Your task to perform on an android device: open chrome privacy settings Image 0: 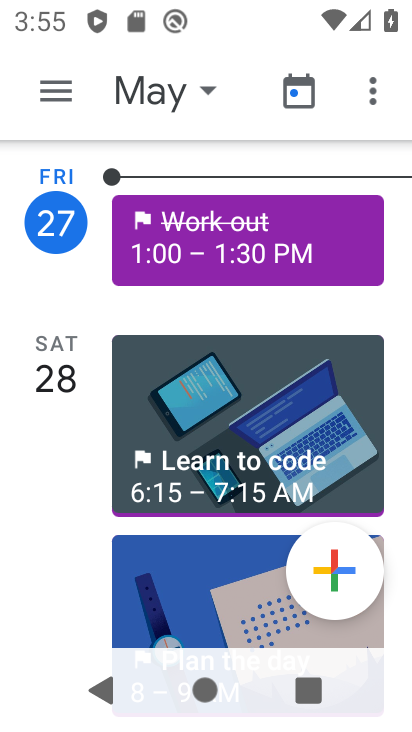
Step 0: press back button
Your task to perform on an android device: open chrome privacy settings Image 1: 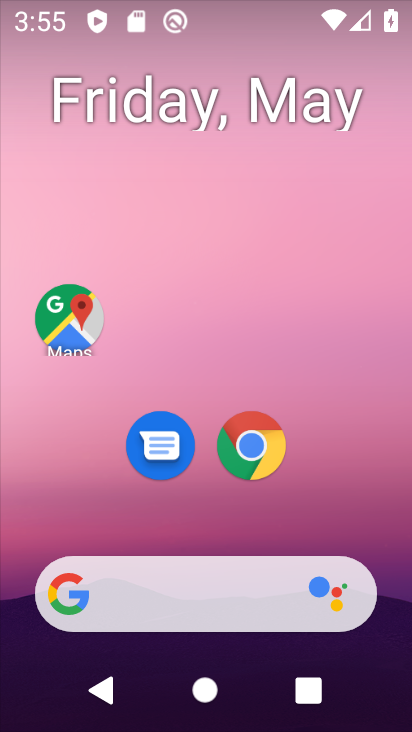
Step 1: click (254, 442)
Your task to perform on an android device: open chrome privacy settings Image 2: 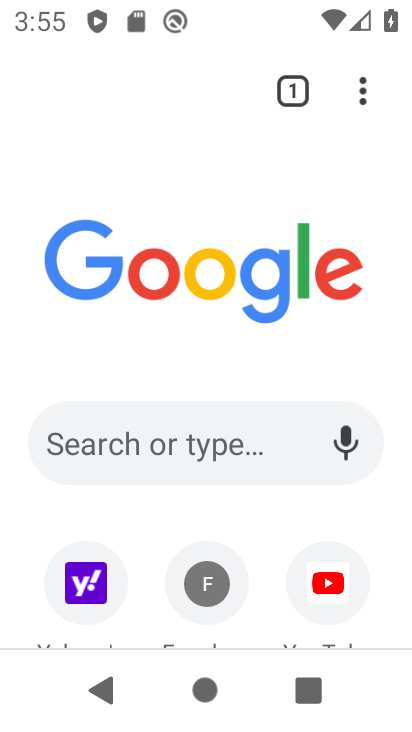
Step 2: drag from (357, 81) to (118, 475)
Your task to perform on an android device: open chrome privacy settings Image 3: 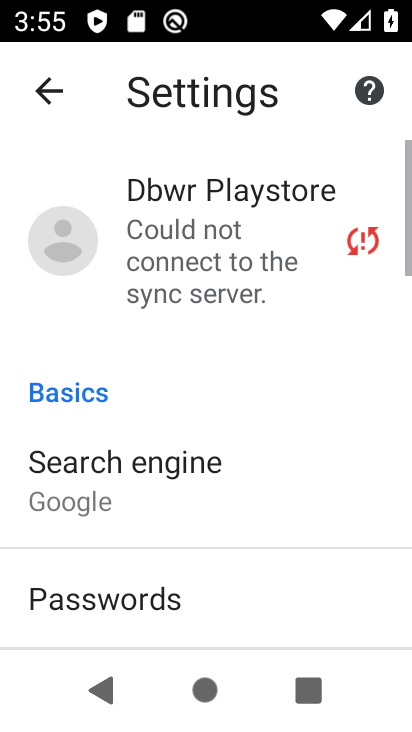
Step 3: drag from (149, 583) to (238, 103)
Your task to perform on an android device: open chrome privacy settings Image 4: 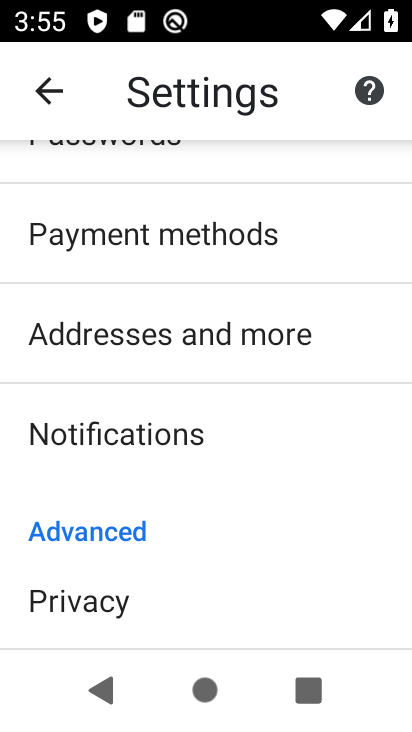
Step 4: click (98, 597)
Your task to perform on an android device: open chrome privacy settings Image 5: 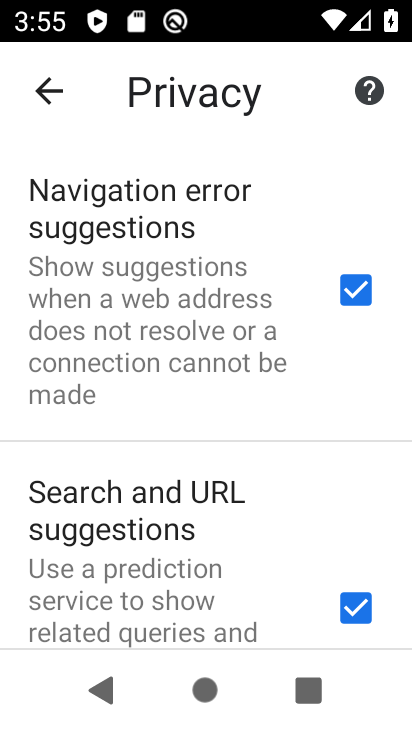
Step 5: task complete